Your task to perform on an android device: turn smart compose on in the gmail app Image 0: 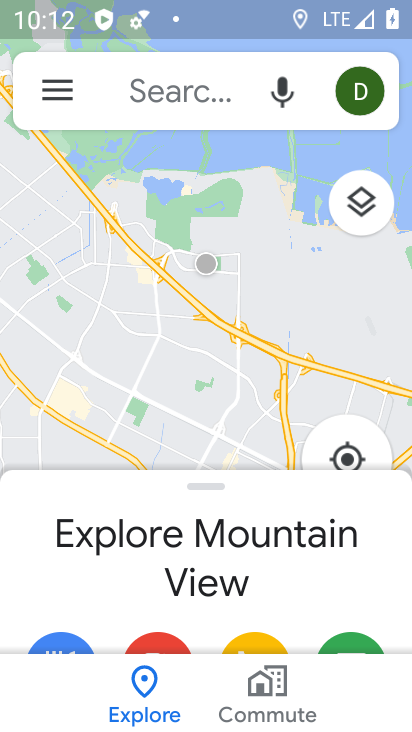
Step 0: press home button
Your task to perform on an android device: turn smart compose on in the gmail app Image 1: 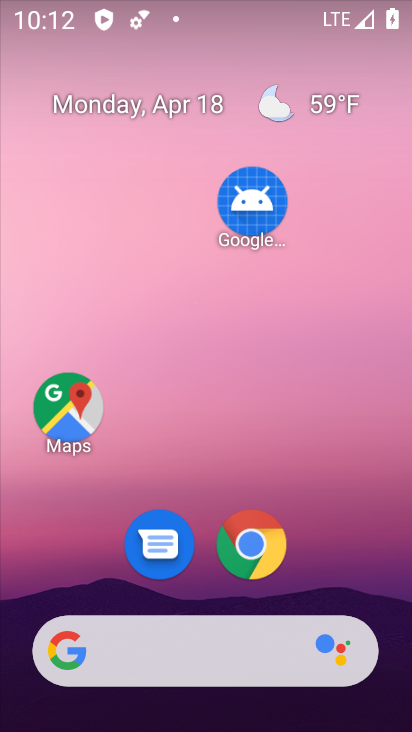
Step 1: drag from (291, 397) to (290, 140)
Your task to perform on an android device: turn smart compose on in the gmail app Image 2: 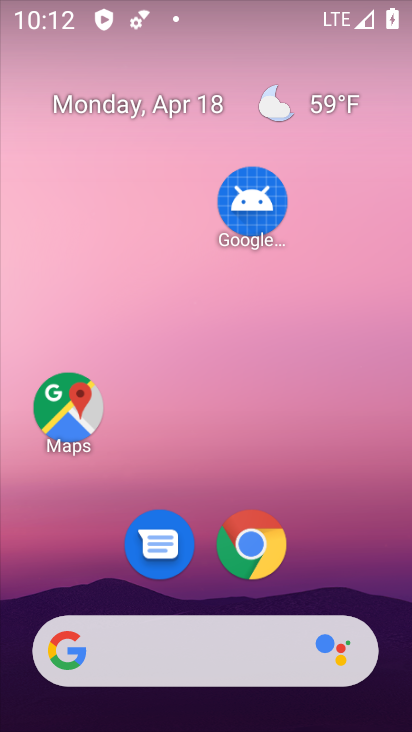
Step 2: drag from (305, 234) to (304, 173)
Your task to perform on an android device: turn smart compose on in the gmail app Image 3: 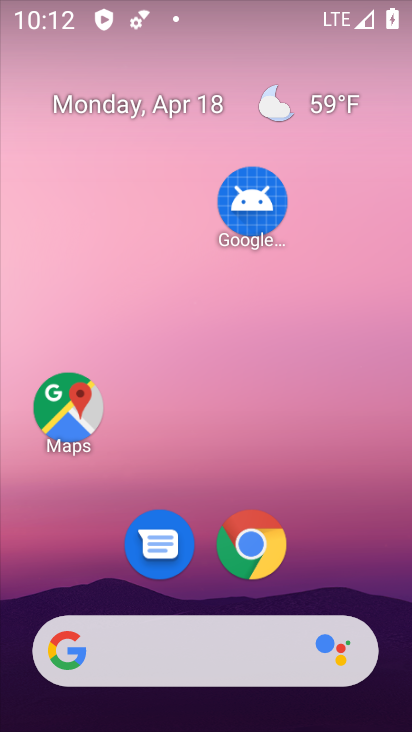
Step 3: drag from (315, 572) to (348, 58)
Your task to perform on an android device: turn smart compose on in the gmail app Image 4: 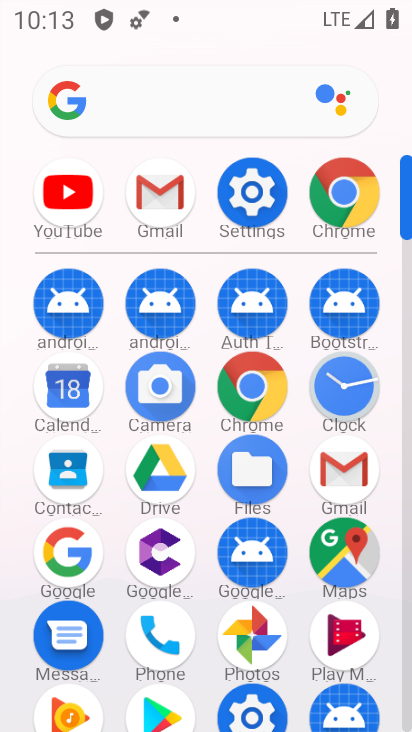
Step 4: click (347, 468)
Your task to perform on an android device: turn smart compose on in the gmail app Image 5: 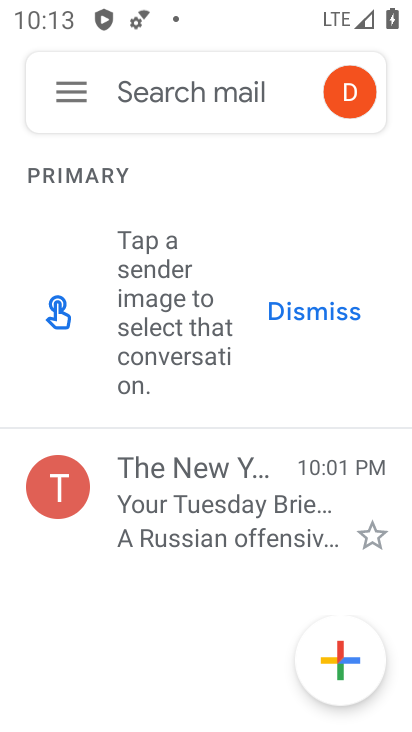
Step 5: click (56, 93)
Your task to perform on an android device: turn smart compose on in the gmail app Image 6: 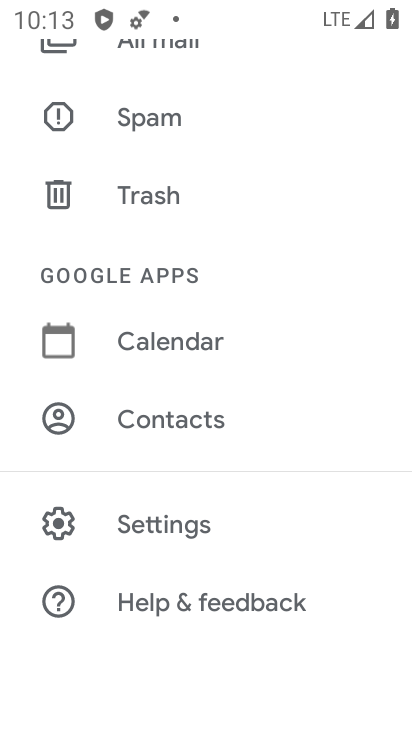
Step 6: click (203, 529)
Your task to perform on an android device: turn smart compose on in the gmail app Image 7: 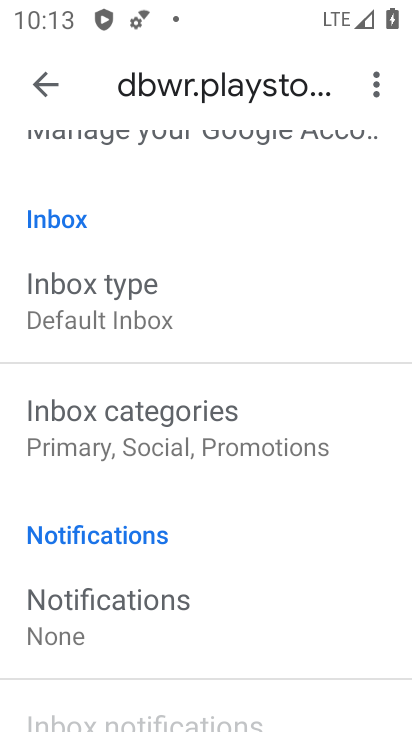
Step 7: drag from (226, 537) to (253, 297)
Your task to perform on an android device: turn smart compose on in the gmail app Image 8: 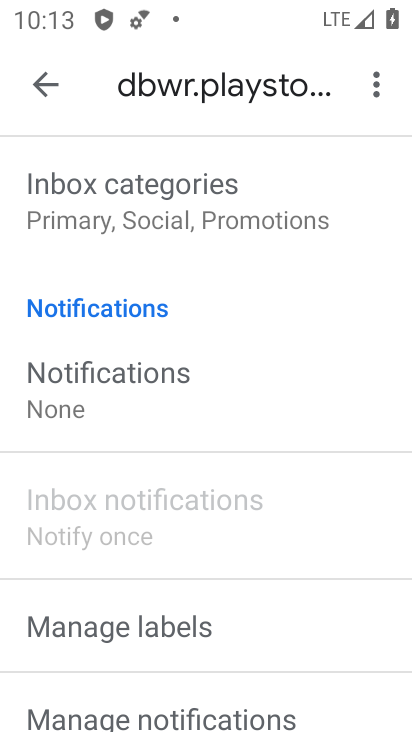
Step 8: drag from (221, 632) to (260, 122)
Your task to perform on an android device: turn smart compose on in the gmail app Image 9: 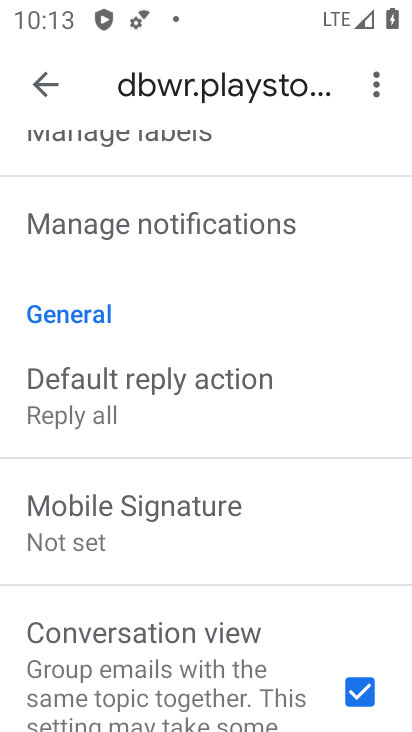
Step 9: drag from (194, 565) to (238, 145)
Your task to perform on an android device: turn smart compose on in the gmail app Image 10: 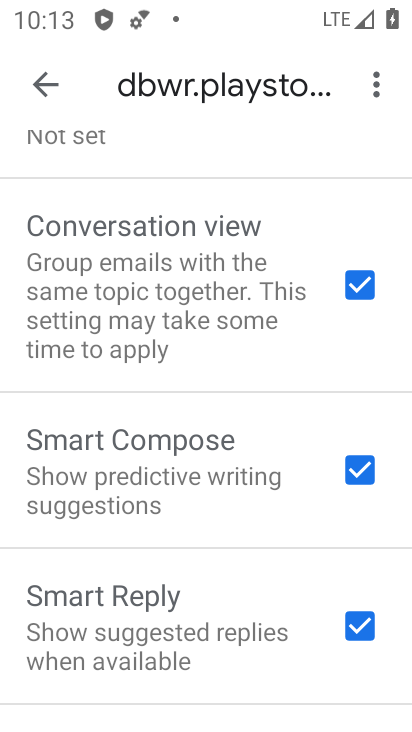
Step 10: click (164, 449)
Your task to perform on an android device: turn smart compose on in the gmail app Image 11: 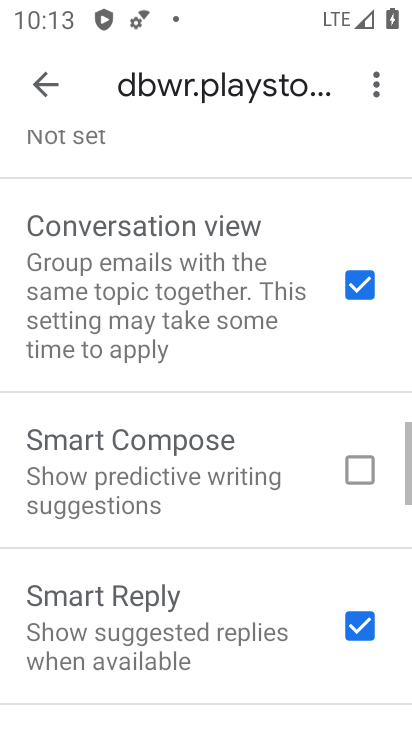
Step 11: click (164, 449)
Your task to perform on an android device: turn smart compose on in the gmail app Image 12: 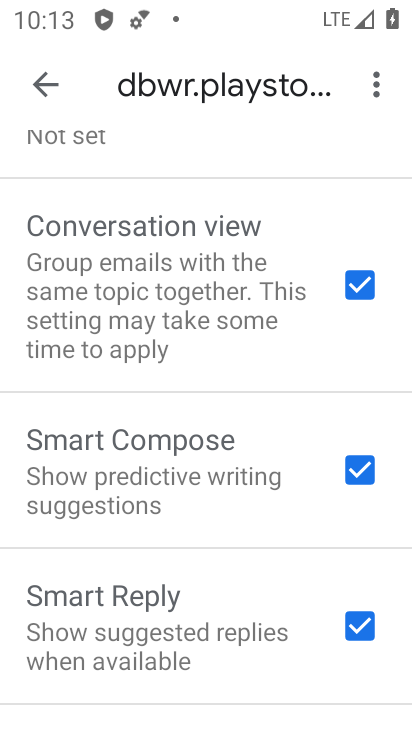
Step 12: task complete